Your task to perform on an android device: Show the shopping cart on amazon. Add lg ultragear to the cart on amazon, then select checkout. Image 0: 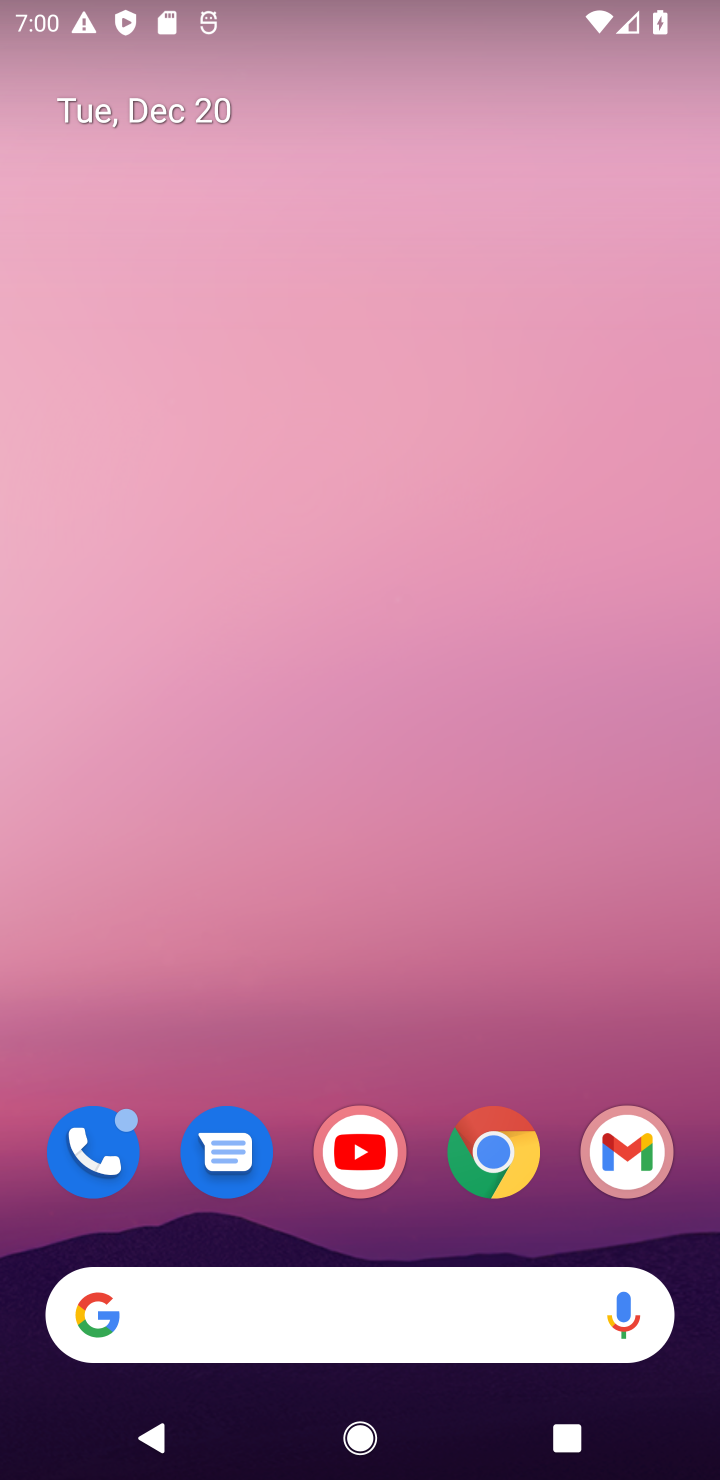
Step 0: click (531, 1160)
Your task to perform on an android device: Show the shopping cart on amazon. Add lg ultragear to the cart on amazon, then select checkout. Image 1: 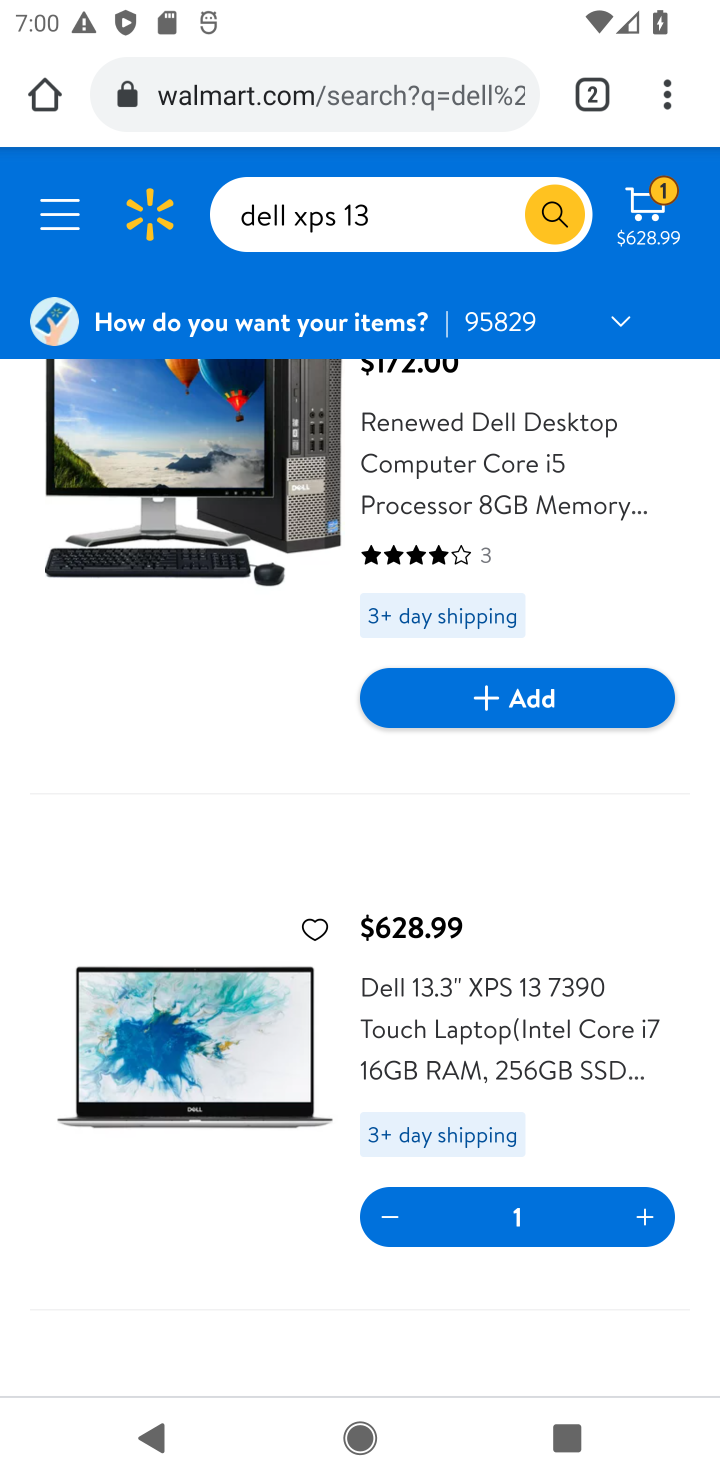
Step 1: click (593, 85)
Your task to perform on an android device: Show the shopping cart on amazon. Add lg ultragear to the cart on amazon, then select checkout. Image 2: 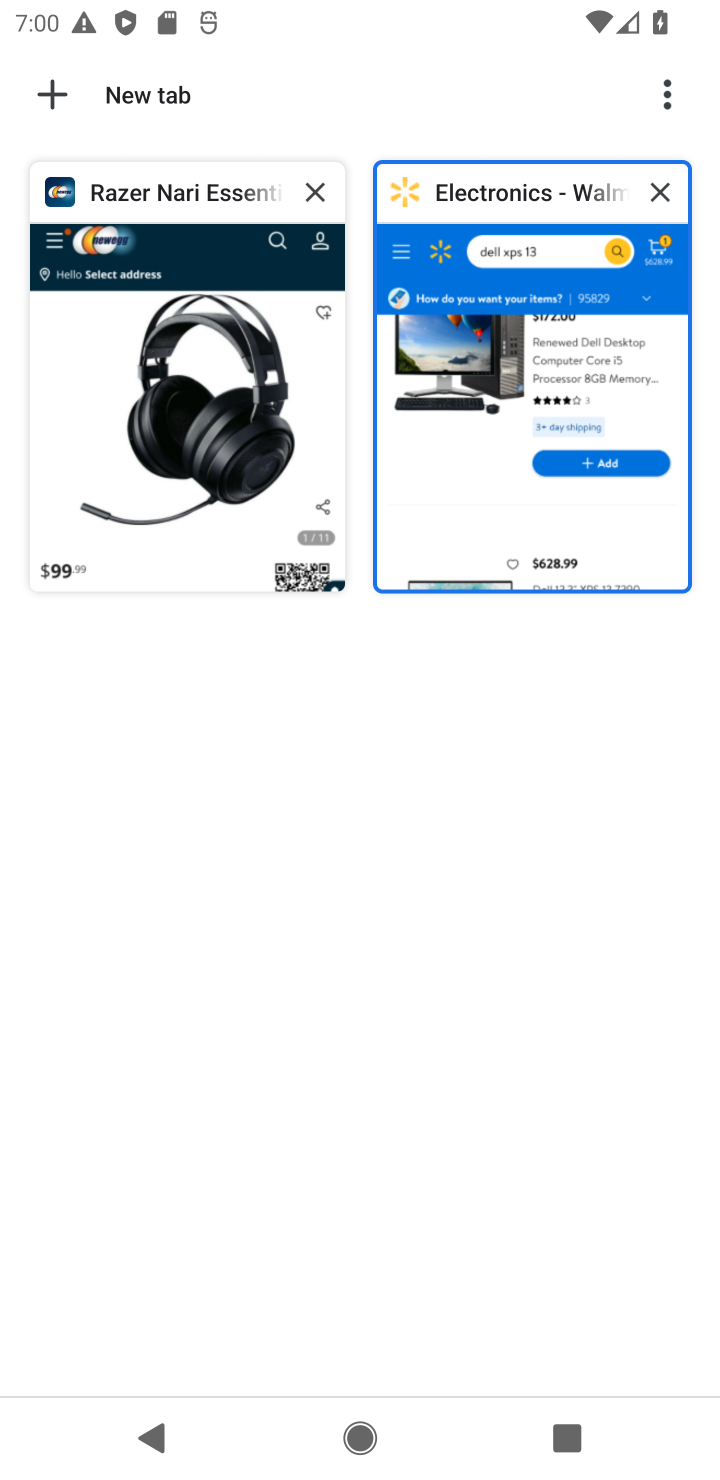
Step 2: click (52, 96)
Your task to perform on an android device: Show the shopping cart on amazon. Add lg ultragear to the cart on amazon, then select checkout. Image 3: 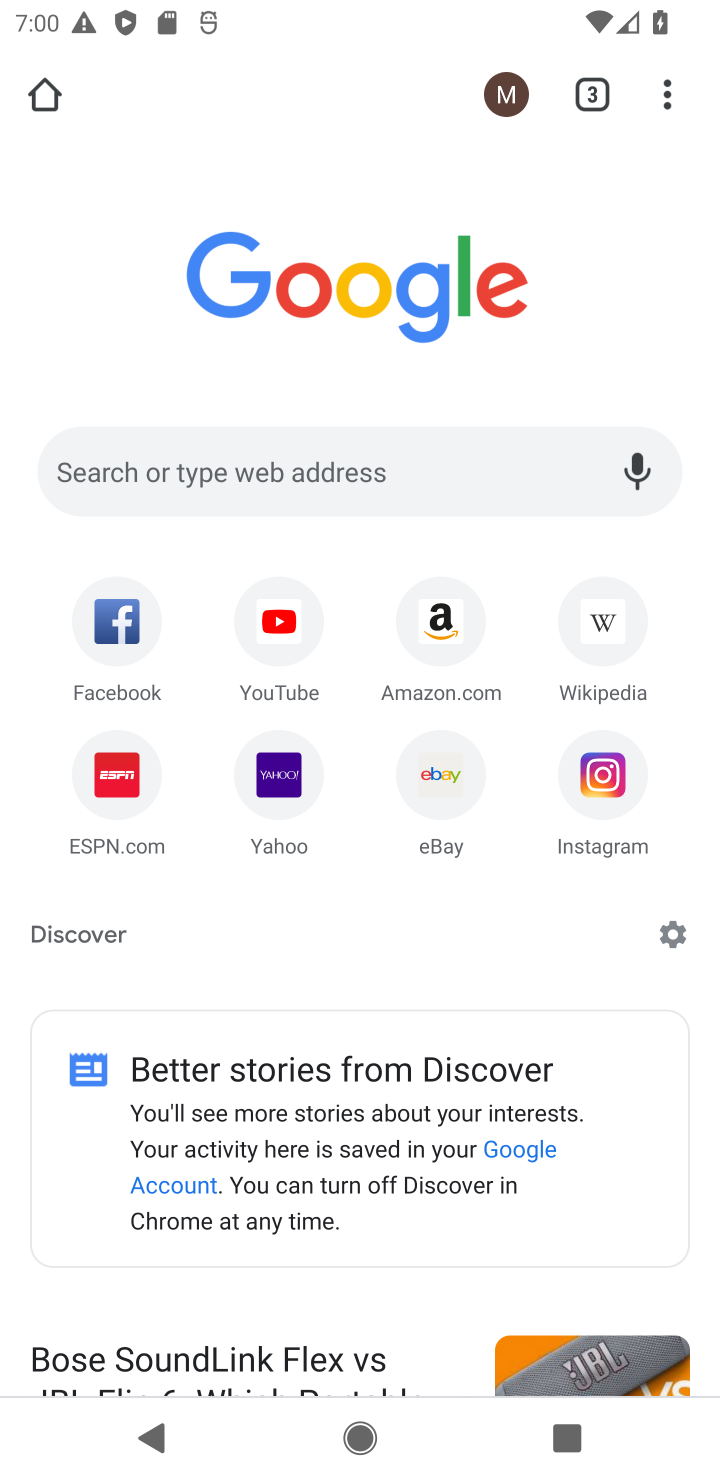
Step 3: click (438, 632)
Your task to perform on an android device: Show the shopping cart on amazon. Add lg ultragear to the cart on amazon, then select checkout. Image 4: 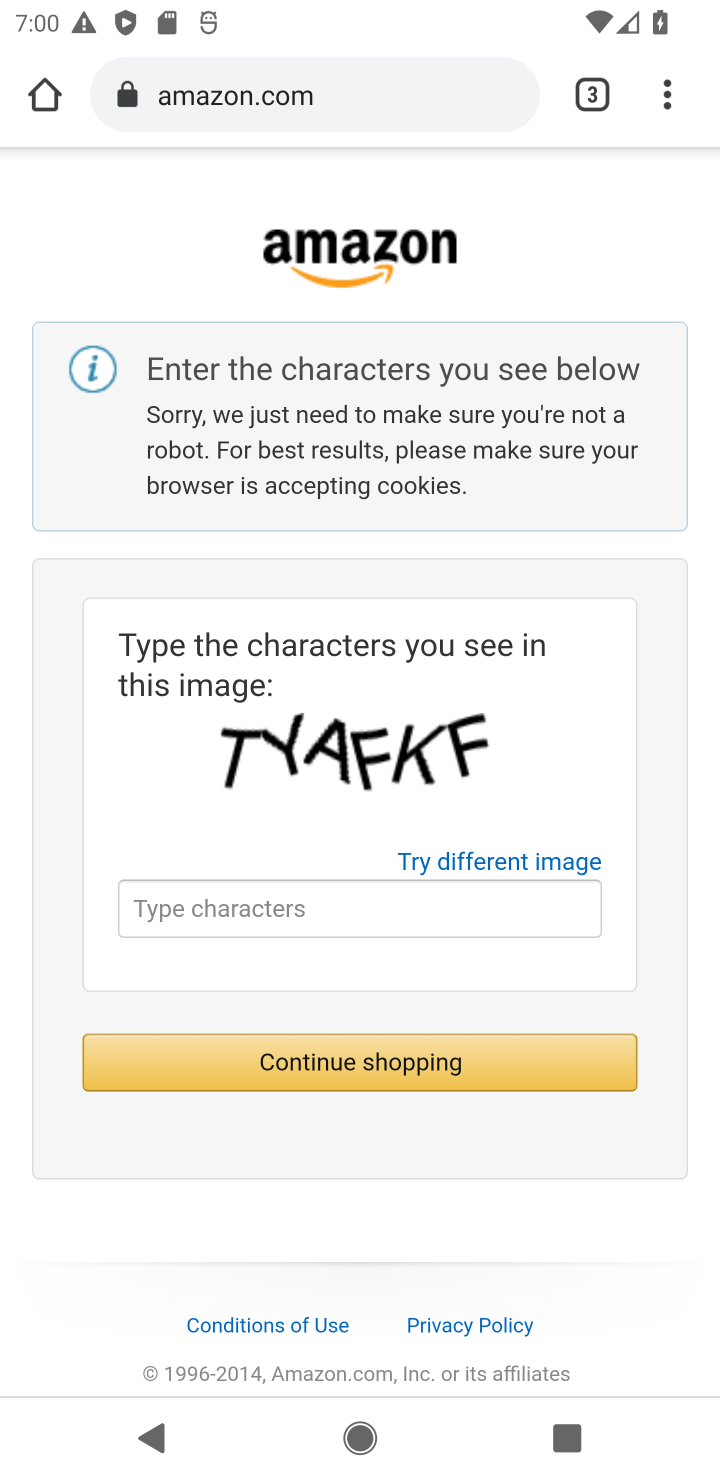
Step 4: click (332, 905)
Your task to perform on an android device: Show the shopping cart on amazon. Add lg ultragear to the cart on amazon, then select checkout. Image 5: 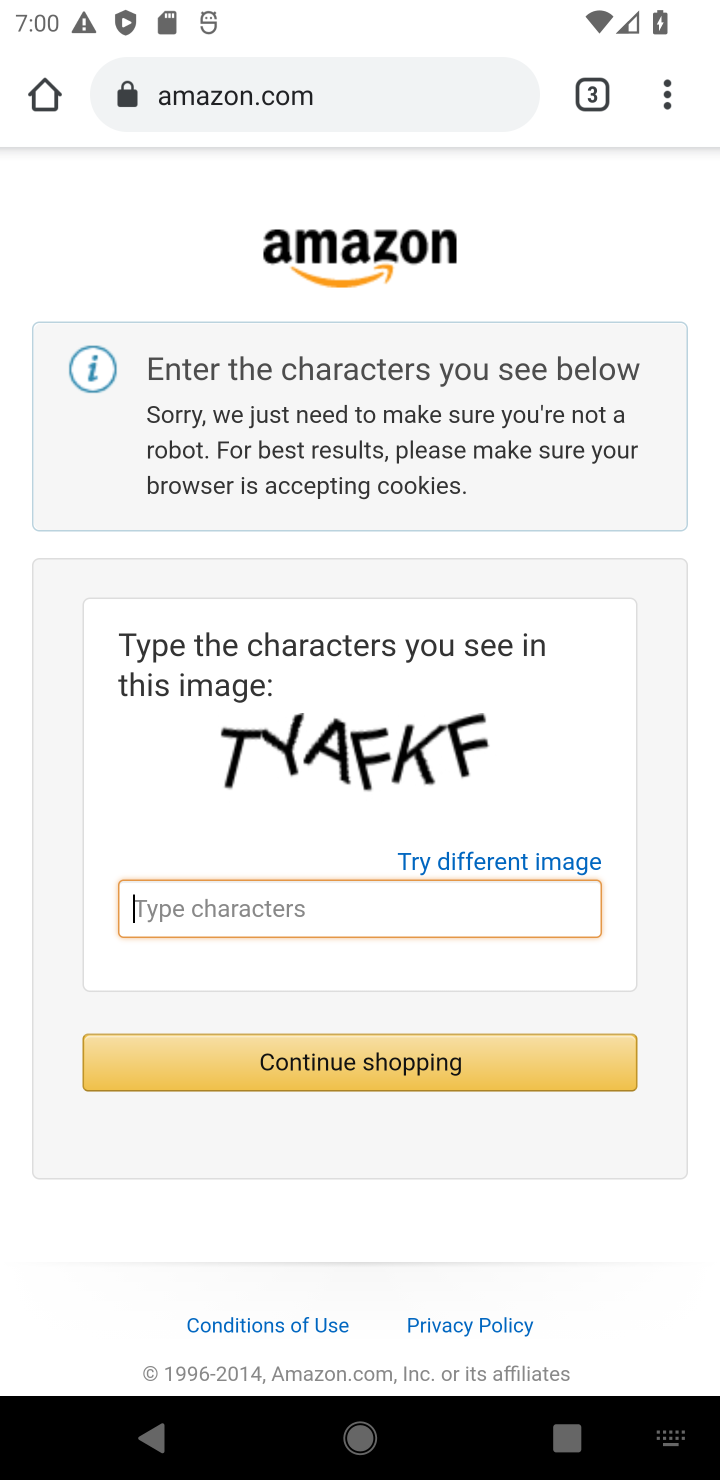
Step 5: type "TYAFKF"
Your task to perform on an android device: Show the shopping cart on amazon. Add lg ultragear to the cart on amazon, then select checkout. Image 6: 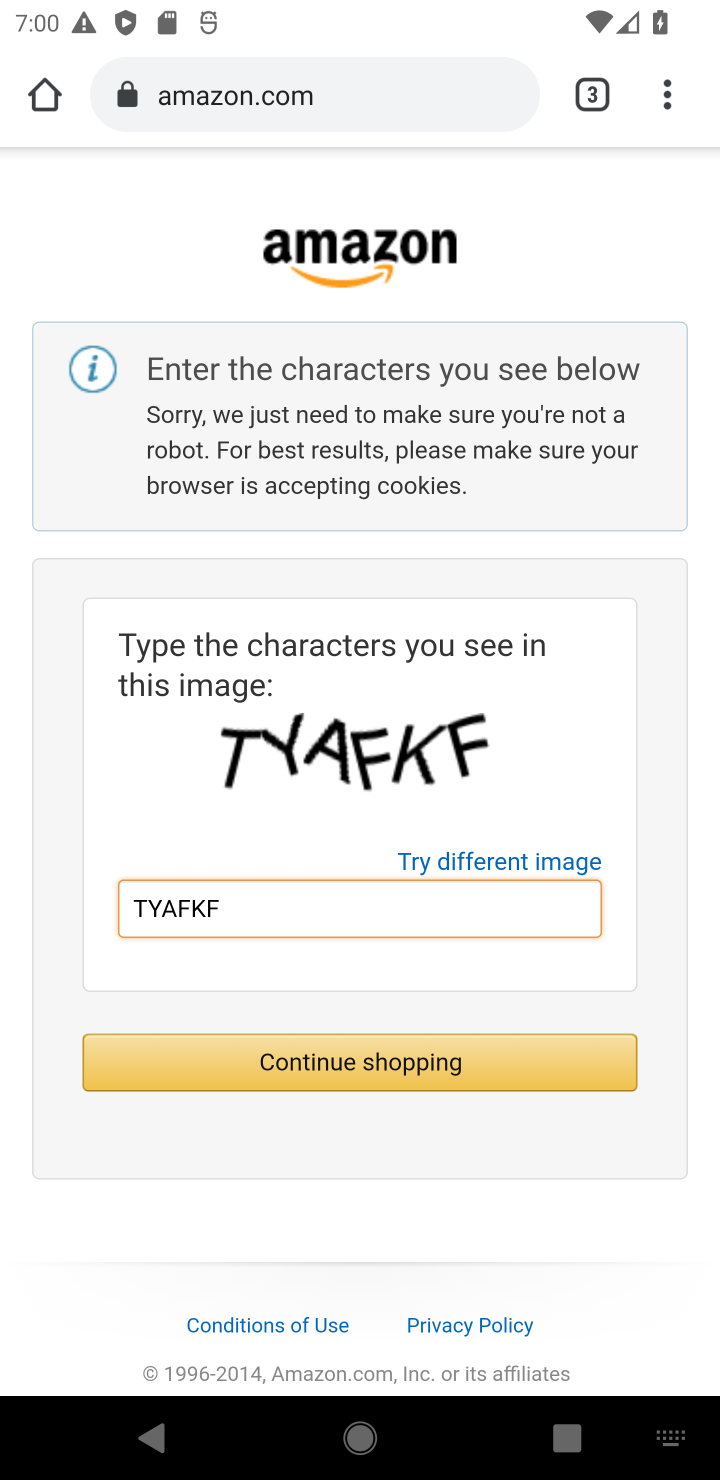
Step 6: click (414, 1070)
Your task to perform on an android device: Show the shopping cart on amazon. Add lg ultragear to the cart on amazon, then select checkout. Image 7: 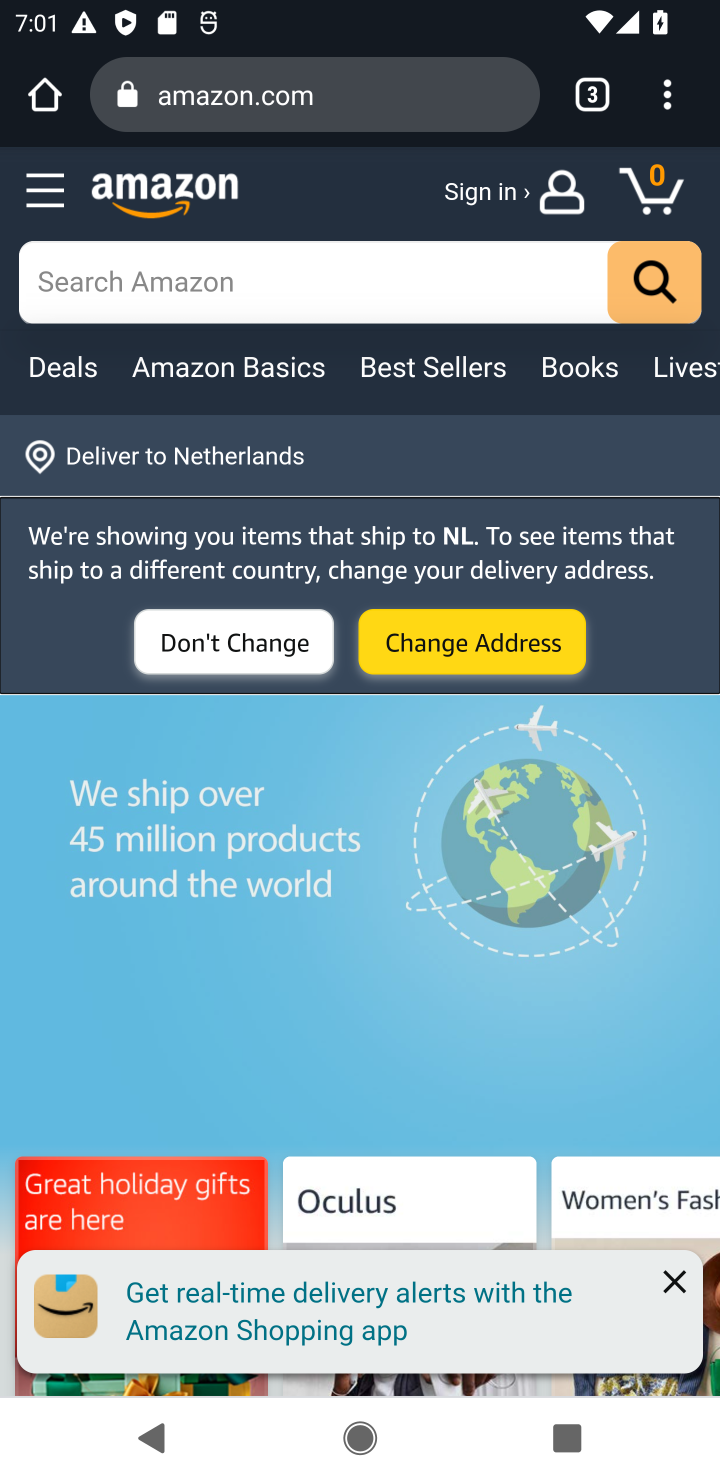
Step 7: click (118, 297)
Your task to perform on an android device: Show the shopping cart on amazon. Add lg ultragear to the cart on amazon, then select checkout. Image 8: 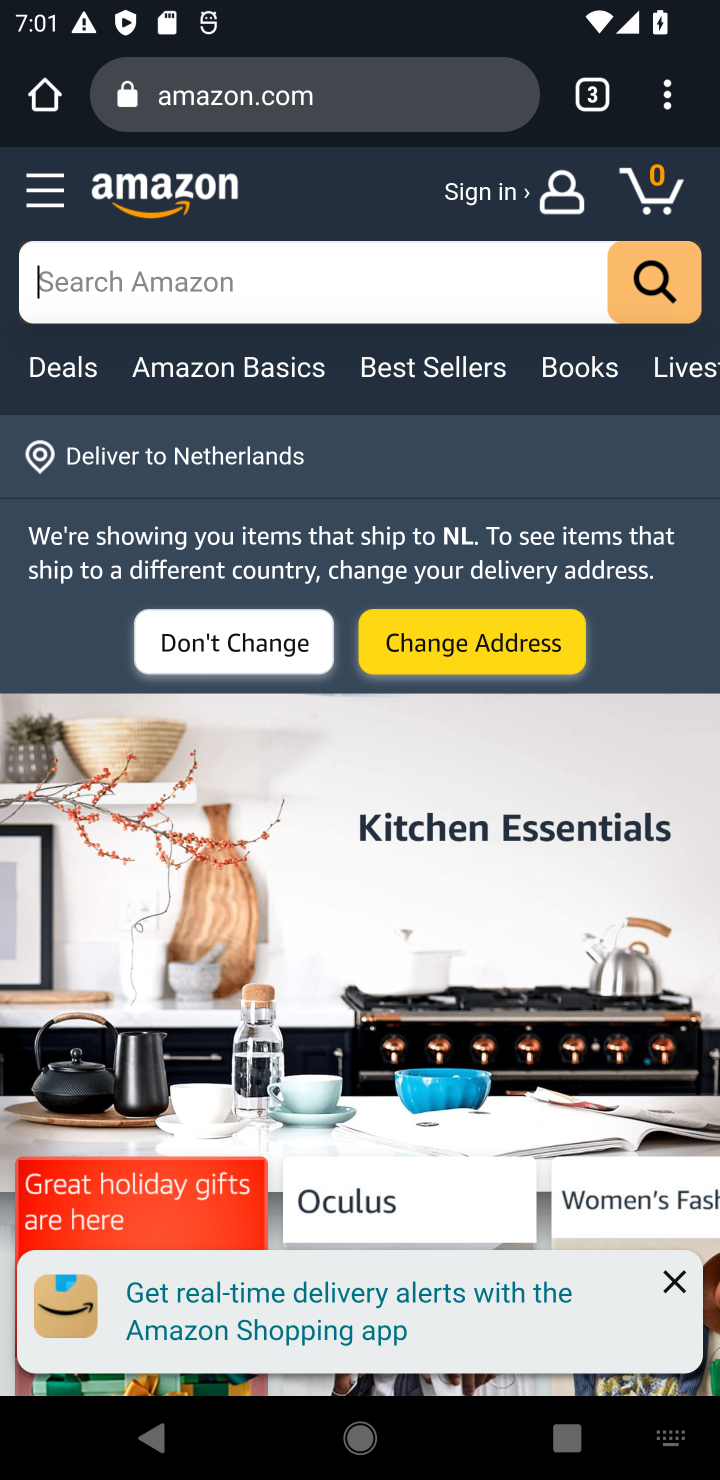
Step 8: press enter
Your task to perform on an android device: Show the shopping cart on amazon. Add lg ultragear to the cart on amazon, then select checkout. Image 9: 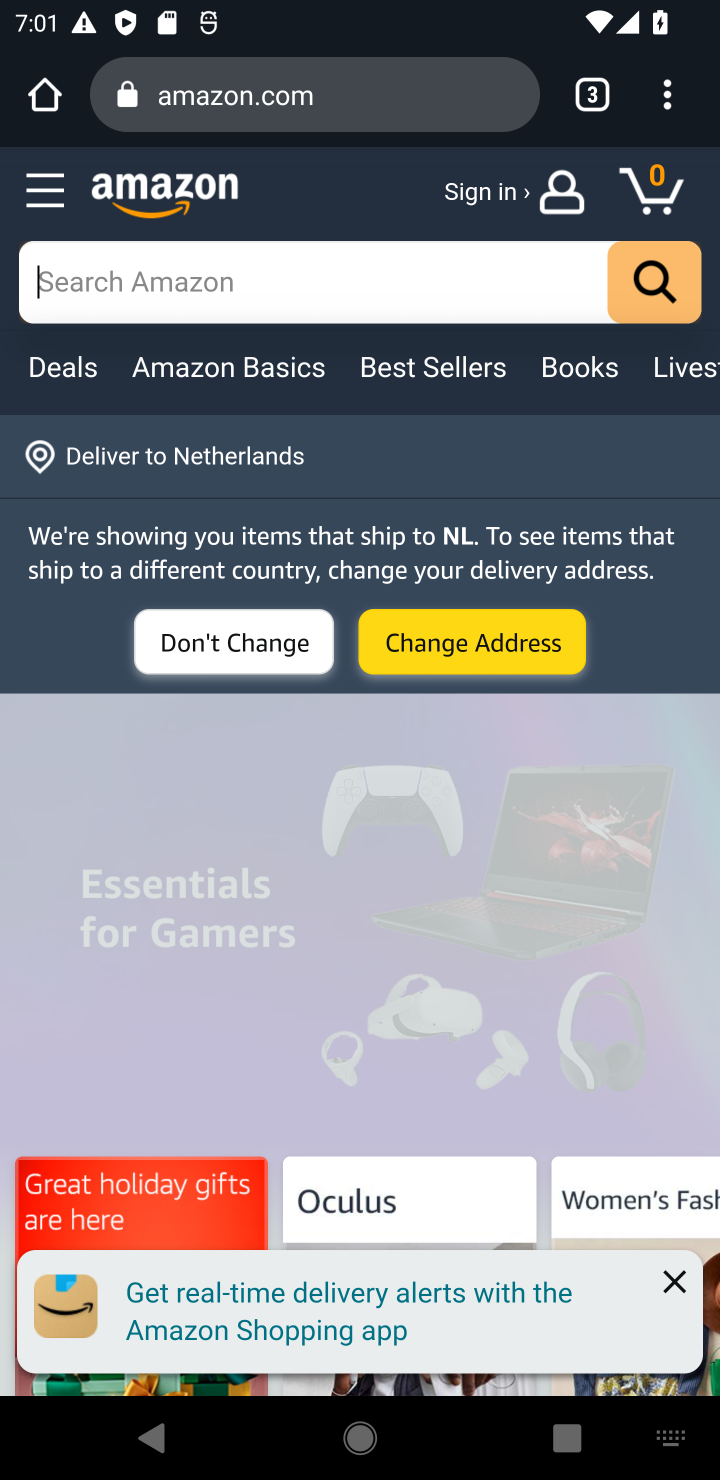
Step 9: type "lg ultragear"
Your task to perform on an android device: Show the shopping cart on amazon. Add lg ultragear to the cart on amazon, then select checkout. Image 10: 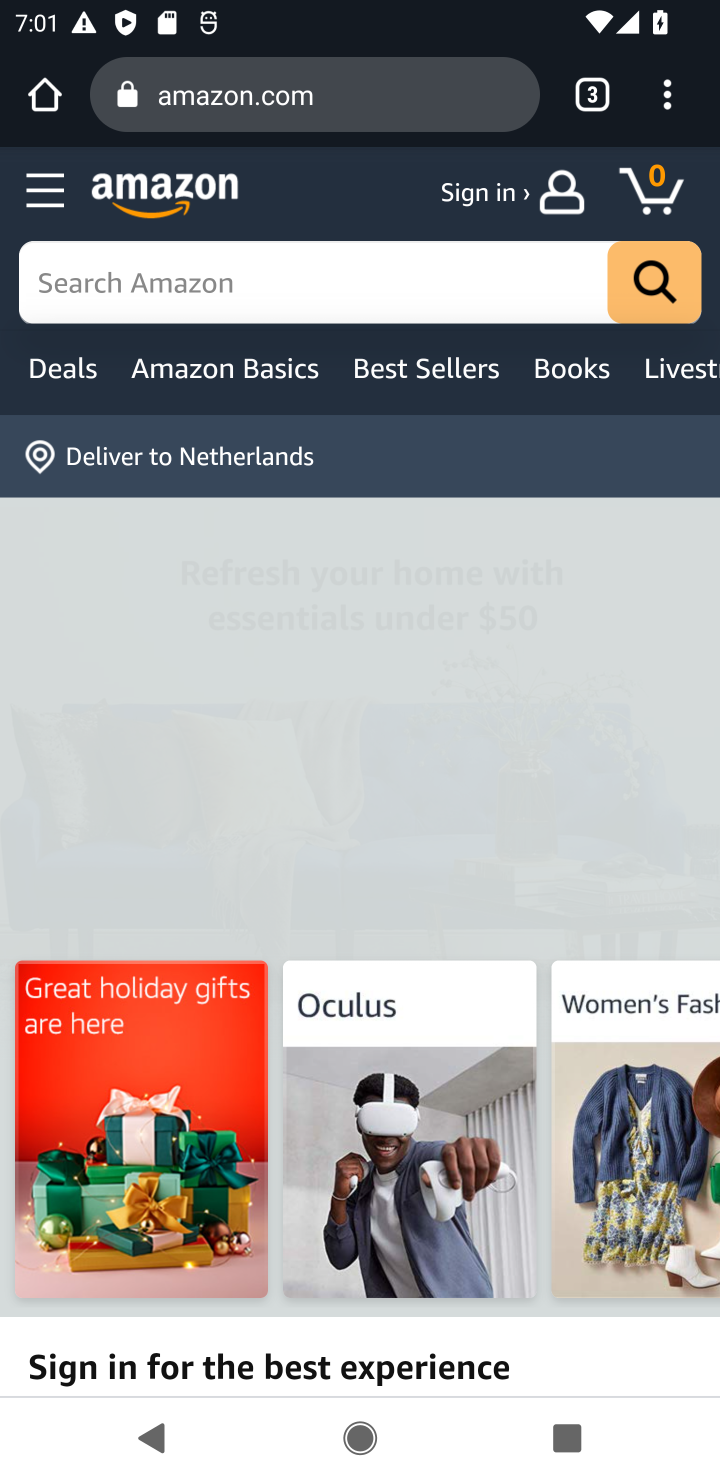
Step 10: type "lg ultragear"
Your task to perform on an android device: Show the shopping cart on amazon. Add lg ultragear to the cart on amazon, then select checkout. Image 11: 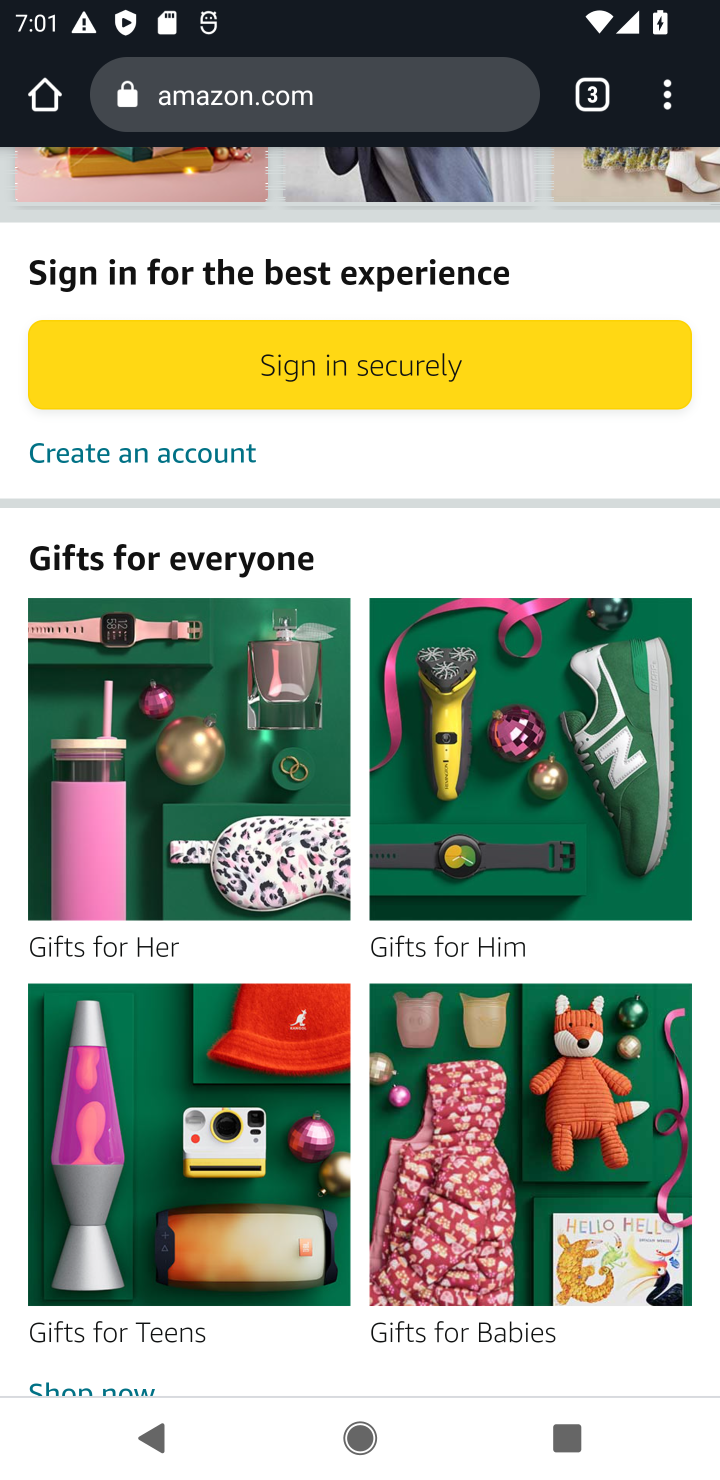
Step 11: drag from (422, 248) to (426, 1082)
Your task to perform on an android device: Show the shopping cart on amazon. Add lg ultragear to the cart on amazon, then select checkout. Image 12: 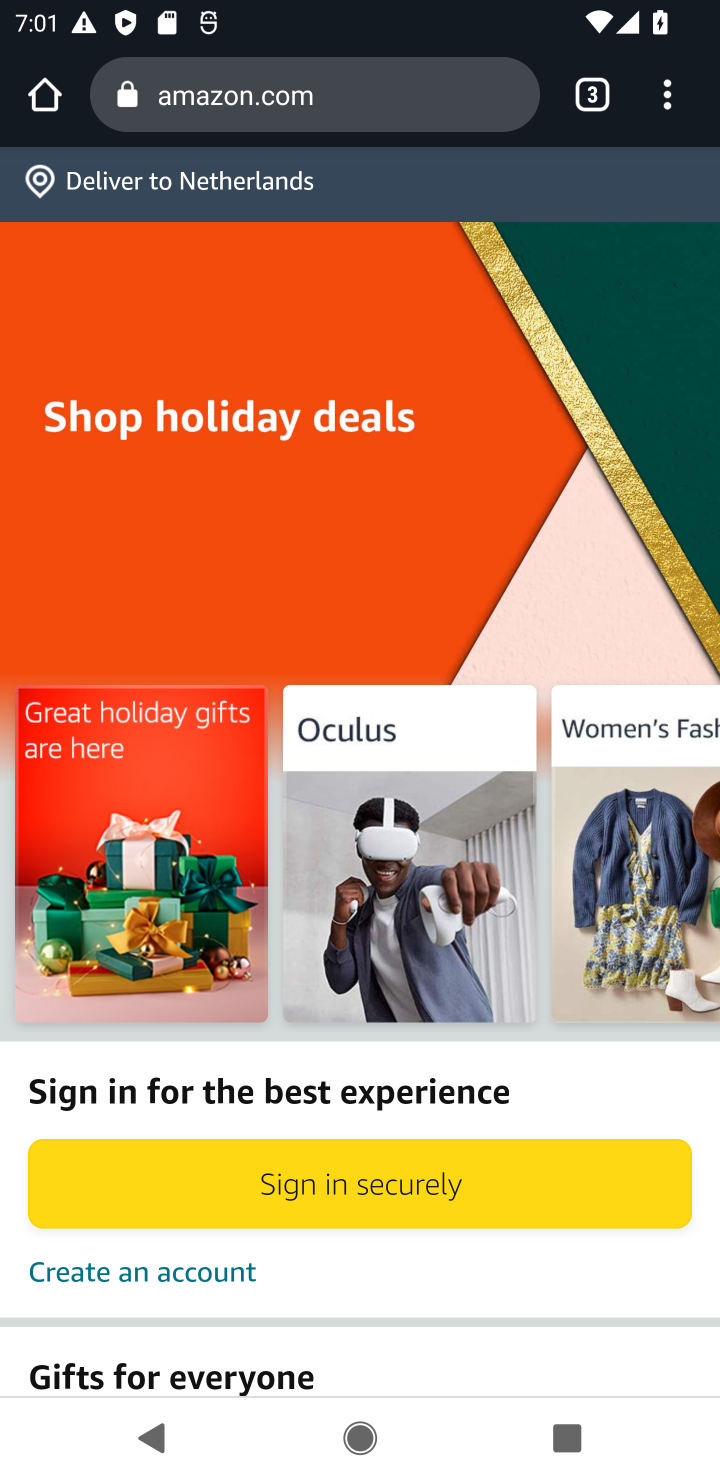
Step 12: drag from (460, 618) to (457, 975)
Your task to perform on an android device: Show the shopping cart on amazon. Add lg ultragear to the cart on amazon, then select checkout. Image 13: 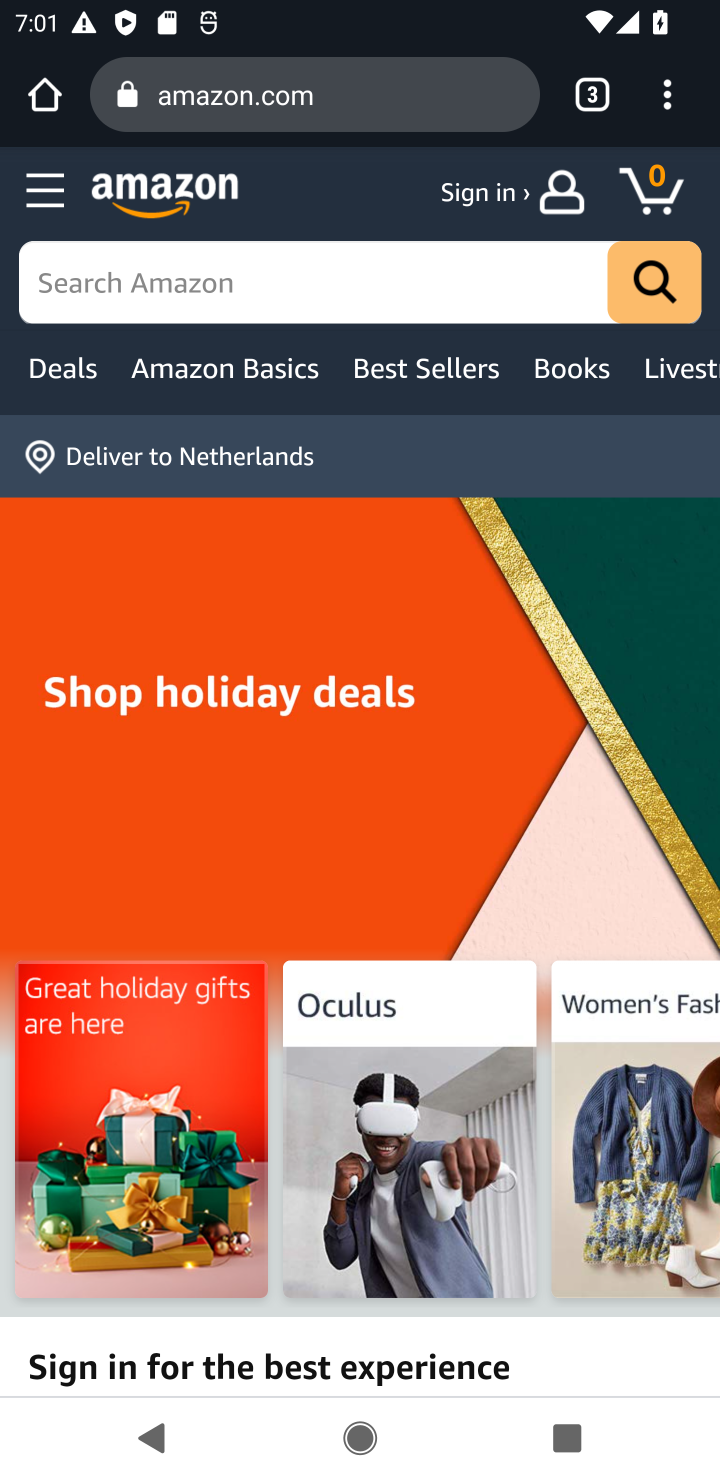
Step 13: click (353, 297)
Your task to perform on an android device: Show the shopping cart on amazon. Add lg ultragear to the cart on amazon, then select checkout. Image 14: 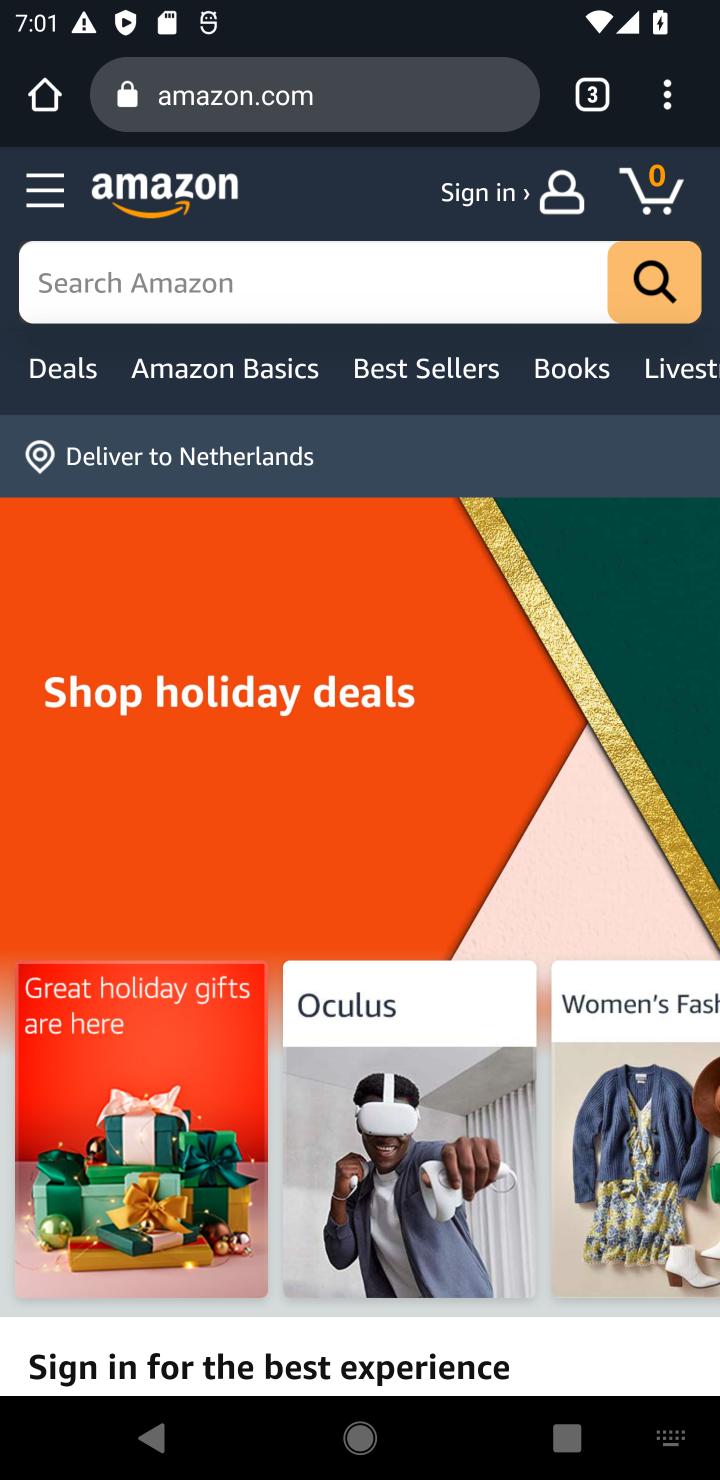
Step 14: type "lg ultragear"
Your task to perform on an android device: Show the shopping cart on amazon. Add lg ultragear to the cart on amazon, then select checkout. Image 15: 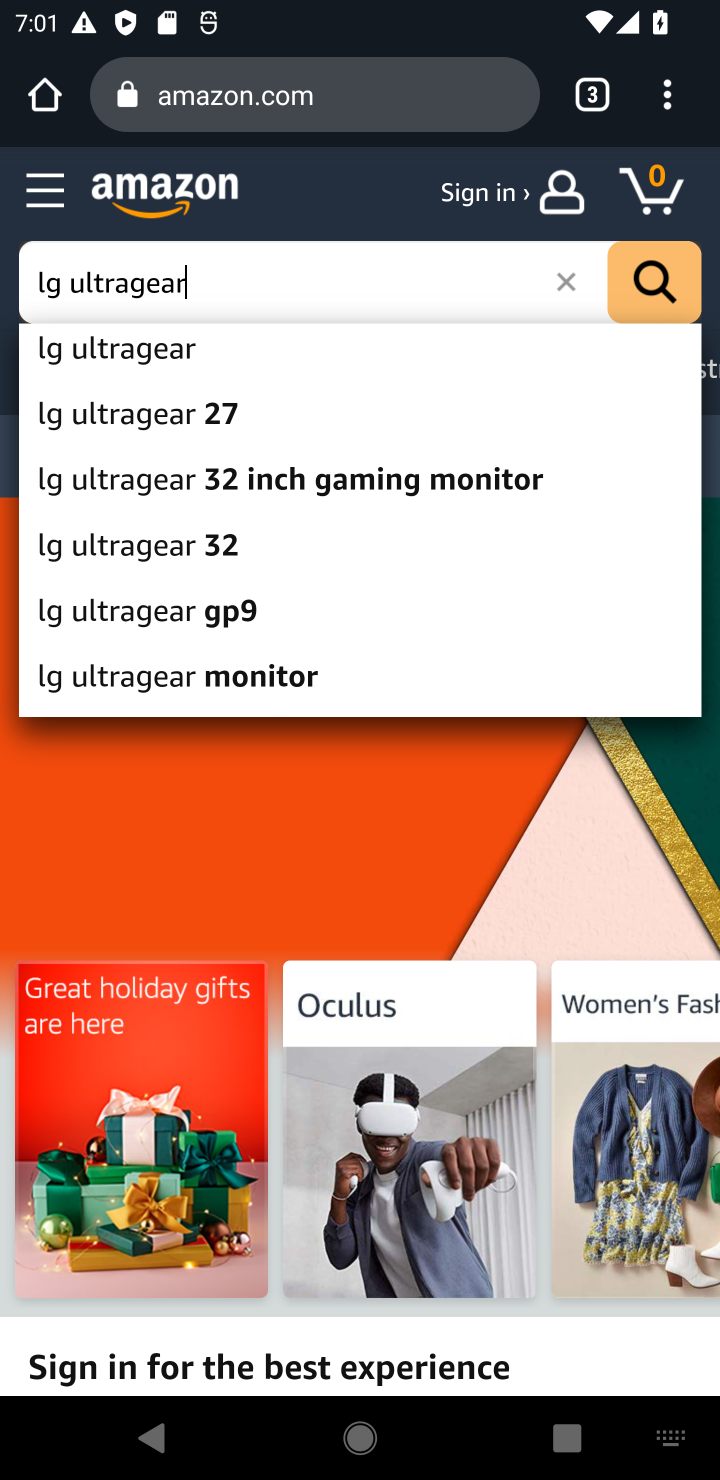
Step 15: click (173, 351)
Your task to perform on an android device: Show the shopping cart on amazon. Add lg ultragear to the cart on amazon, then select checkout. Image 16: 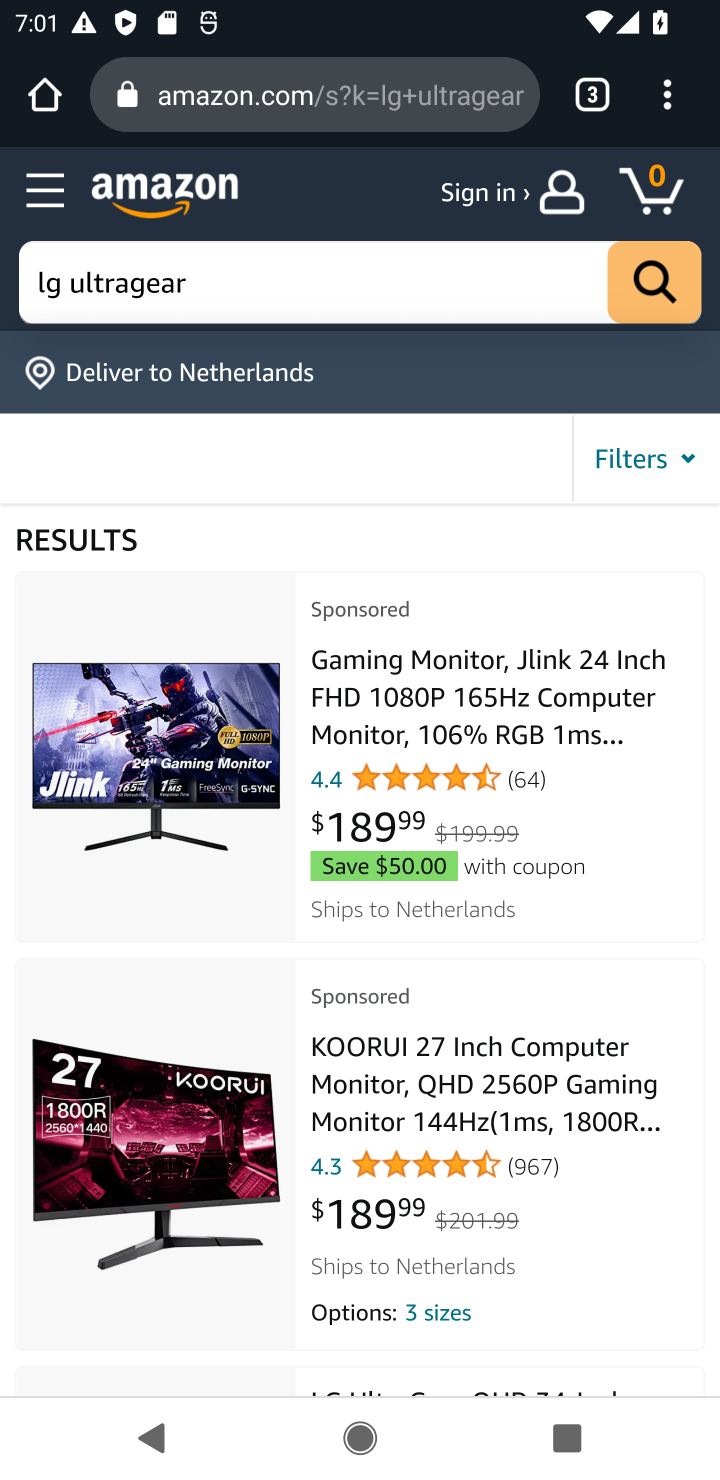
Step 16: drag from (593, 1238) to (549, 652)
Your task to perform on an android device: Show the shopping cart on amazon. Add lg ultragear to the cart on amazon, then select checkout. Image 17: 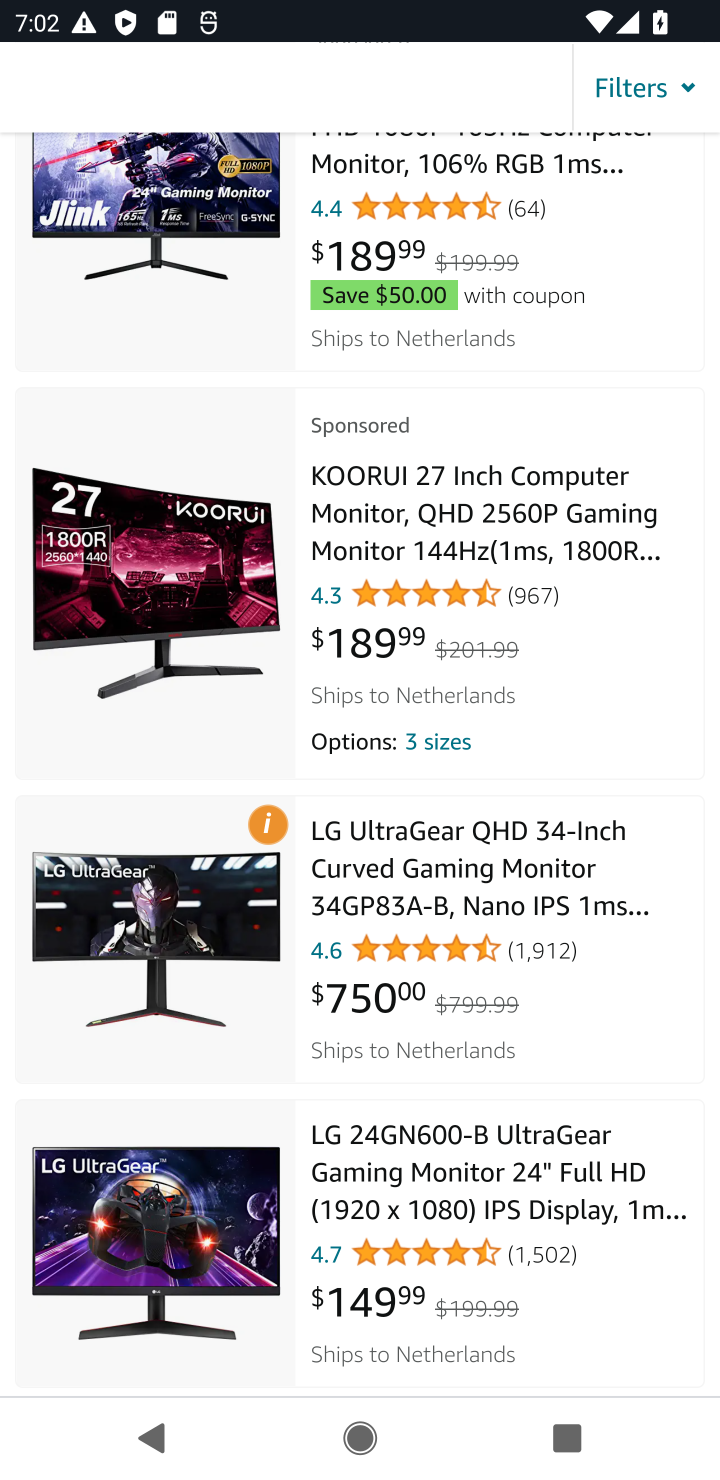
Step 17: click (481, 872)
Your task to perform on an android device: Show the shopping cart on amazon. Add lg ultragear to the cart on amazon, then select checkout. Image 18: 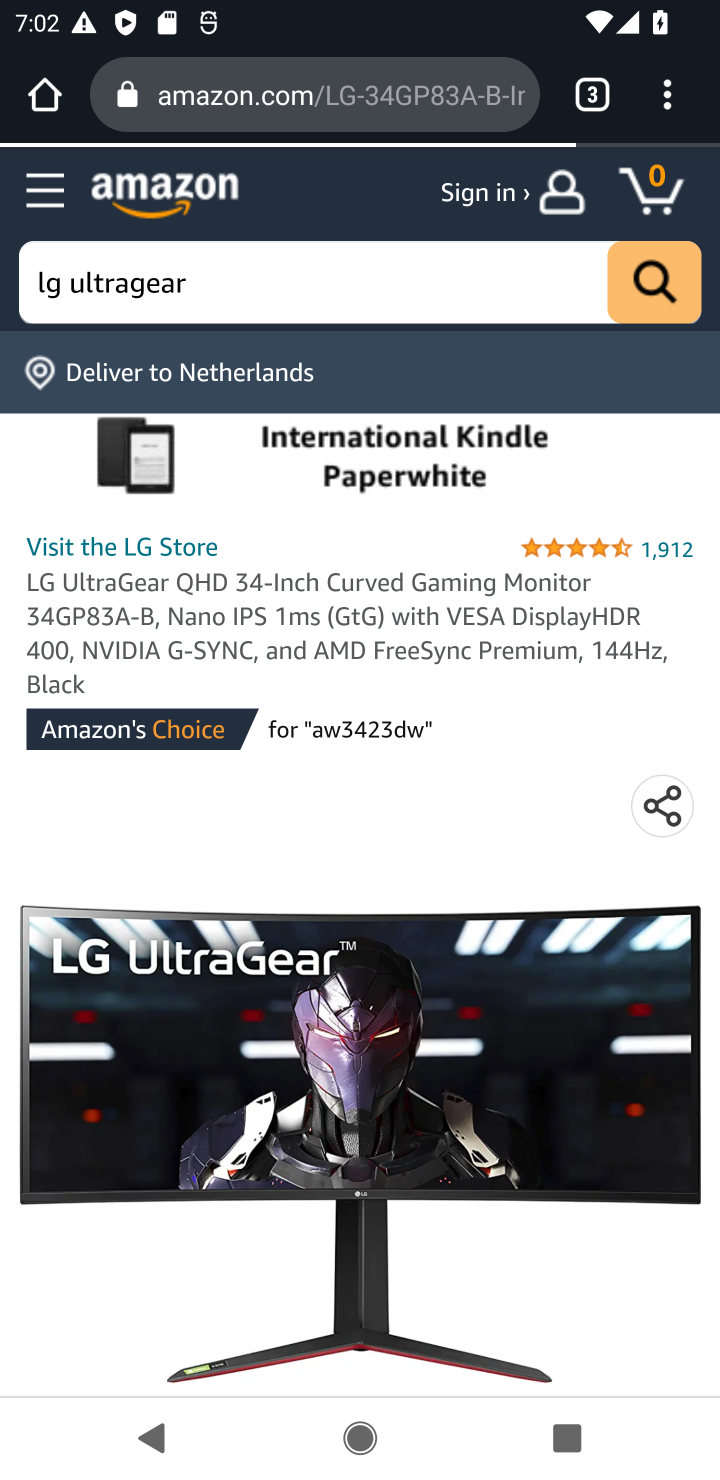
Step 18: drag from (450, 1263) to (576, 565)
Your task to perform on an android device: Show the shopping cart on amazon. Add lg ultragear to the cart on amazon, then select checkout. Image 19: 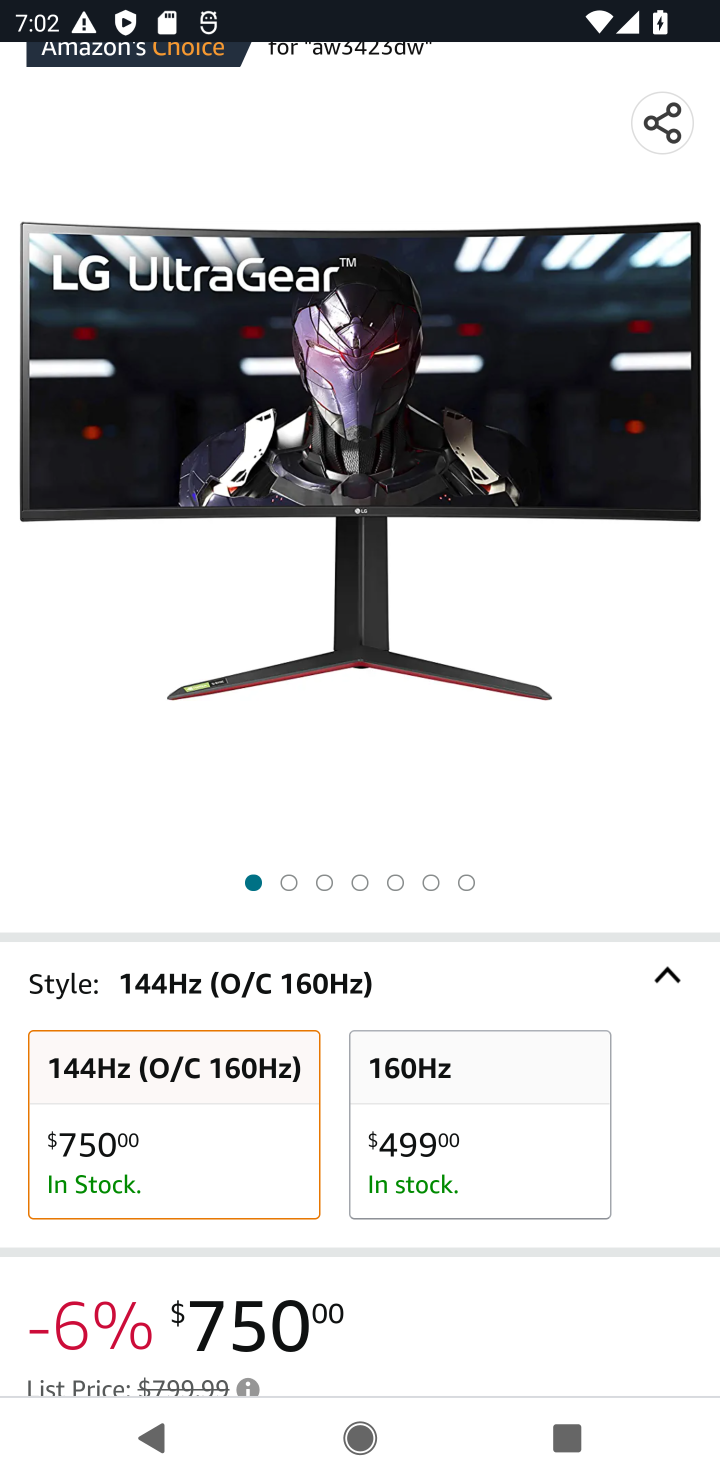
Step 19: click (418, 813)
Your task to perform on an android device: Show the shopping cart on amazon. Add lg ultragear to the cart on amazon, then select checkout. Image 20: 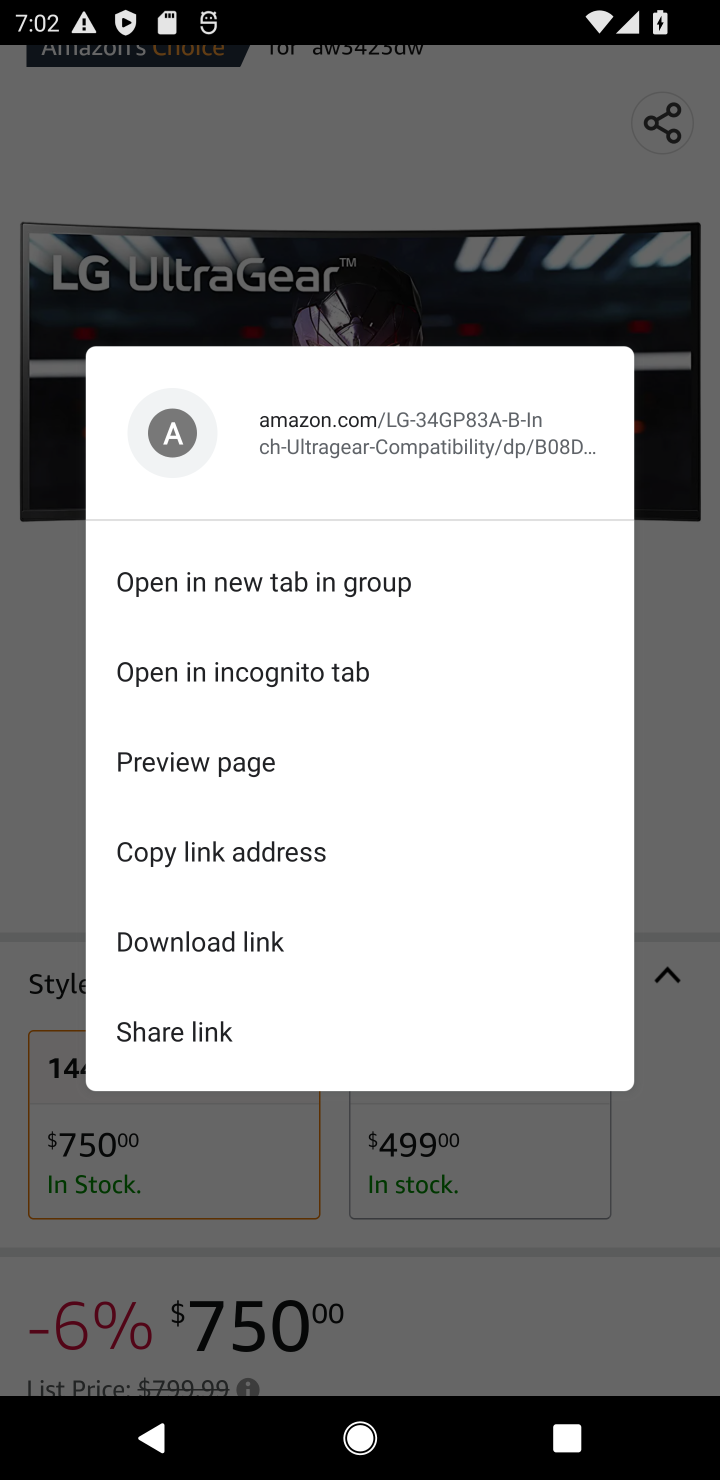
Step 20: click (316, 1172)
Your task to perform on an android device: Show the shopping cart on amazon. Add lg ultragear to the cart on amazon, then select checkout. Image 21: 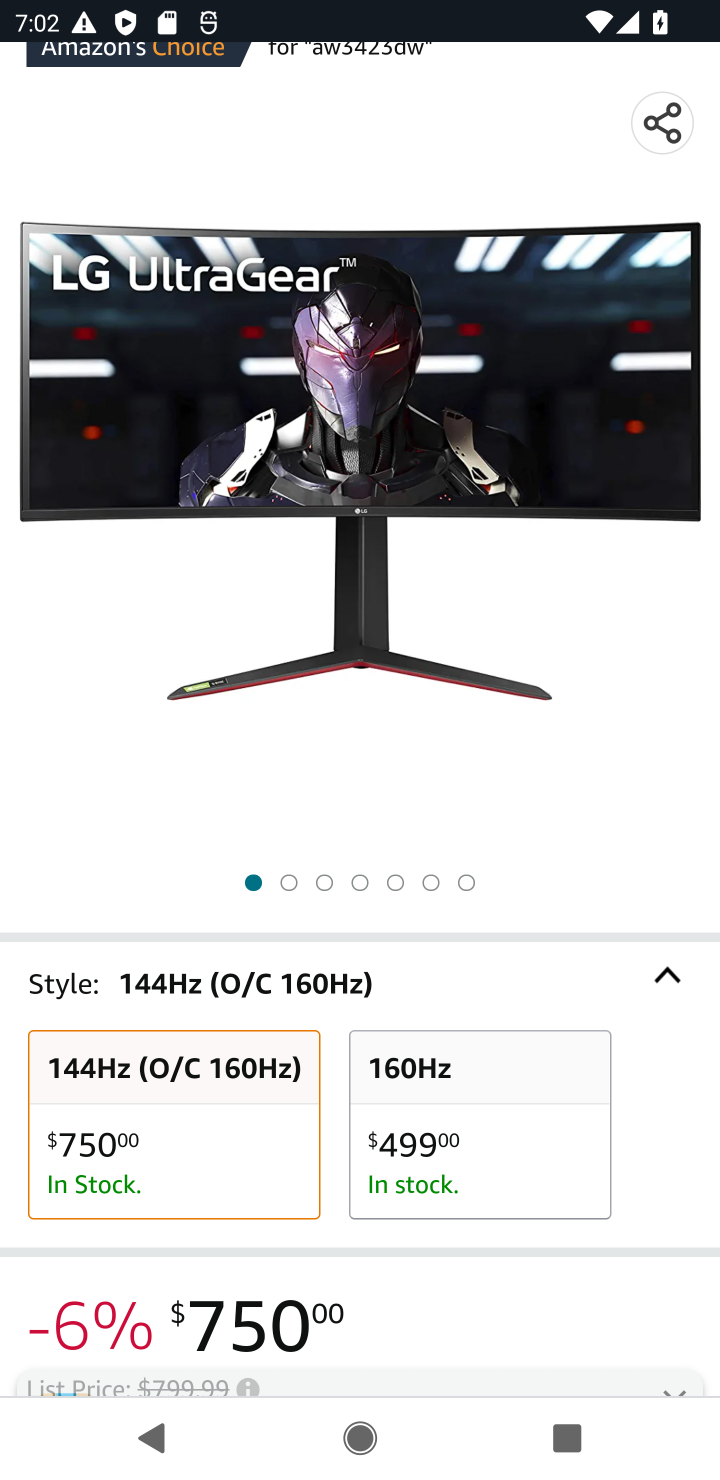
Step 21: drag from (316, 1172) to (433, 448)
Your task to perform on an android device: Show the shopping cart on amazon. Add lg ultragear to the cart on amazon, then select checkout. Image 22: 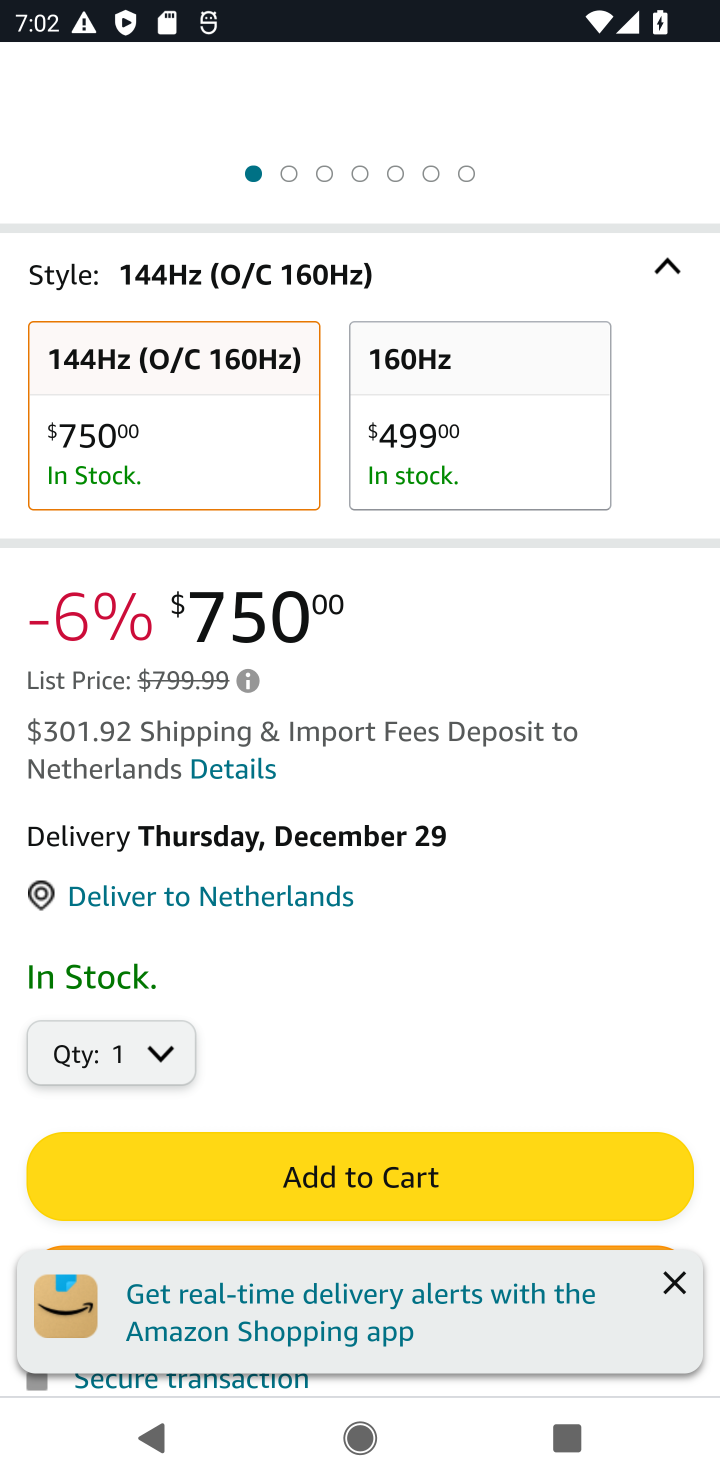
Step 22: click (373, 1162)
Your task to perform on an android device: Show the shopping cart on amazon. Add lg ultragear to the cart on amazon, then select checkout. Image 23: 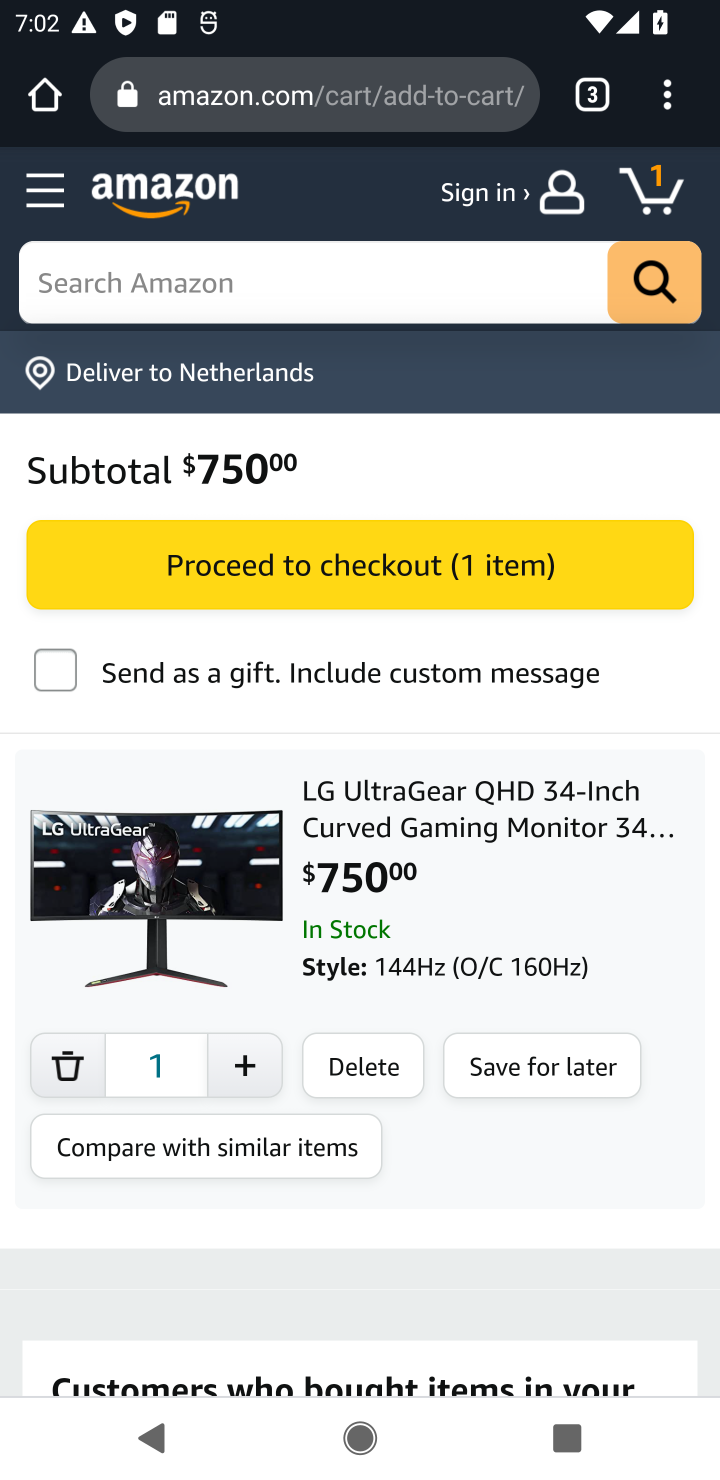
Step 23: task complete